Your task to perform on an android device: Go to Android settings Image 0: 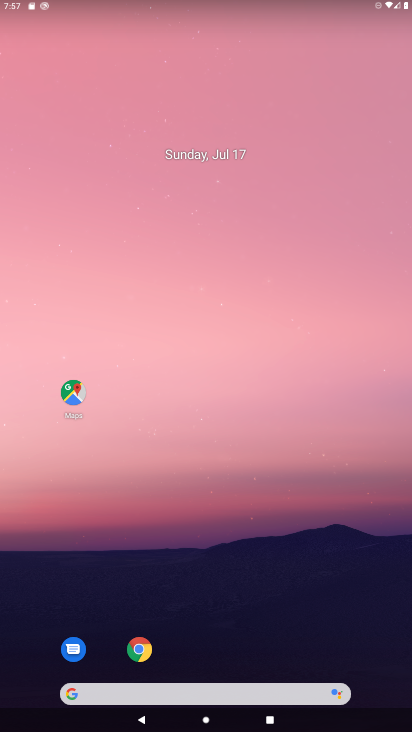
Step 0: drag from (218, 669) to (205, 20)
Your task to perform on an android device: Go to Android settings Image 1: 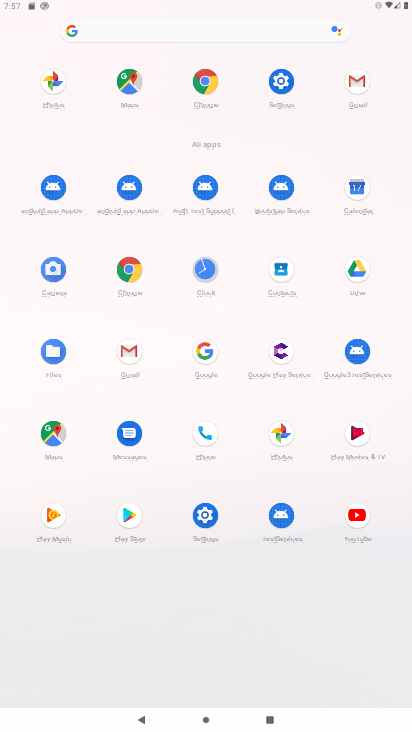
Step 1: click (281, 77)
Your task to perform on an android device: Go to Android settings Image 2: 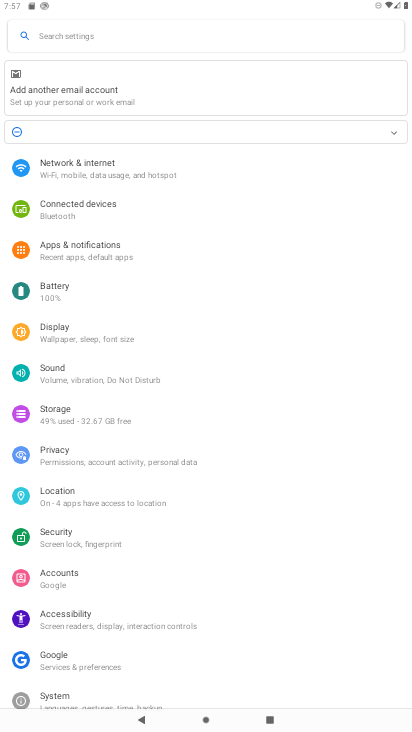
Step 2: drag from (165, 273) to (167, 119)
Your task to perform on an android device: Go to Android settings Image 3: 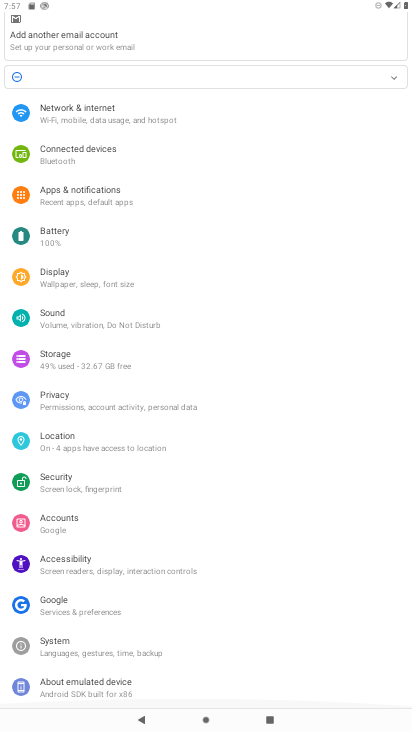
Step 3: drag from (197, 482) to (179, 235)
Your task to perform on an android device: Go to Android settings Image 4: 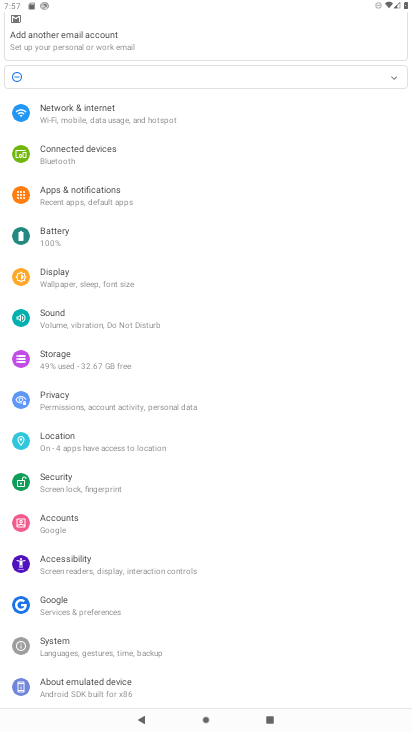
Step 4: click (103, 680)
Your task to perform on an android device: Go to Android settings Image 5: 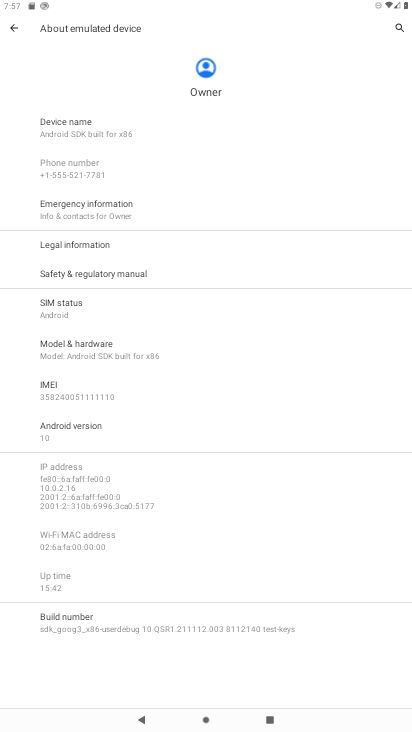
Step 5: task complete